Your task to perform on an android device: Open internet settings Image 0: 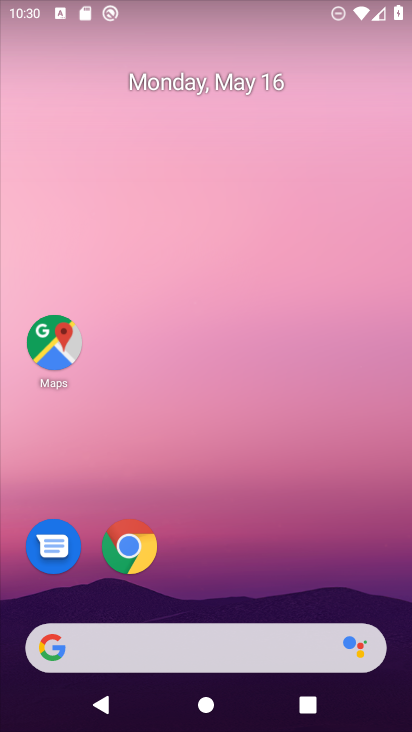
Step 0: drag from (174, 10) to (138, 641)
Your task to perform on an android device: Open internet settings Image 1: 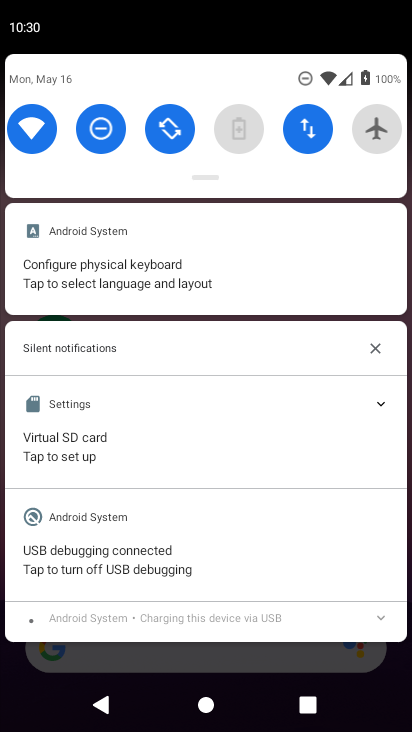
Step 1: click (322, 138)
Your task to perform on an android device: Open internet settings Image 2: 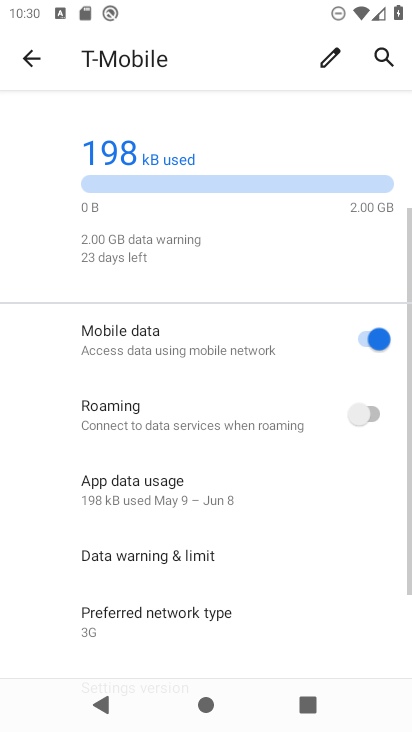
Step 2: task complete